Your task to perform on an android device: Go to Yahoo.com Image 0: 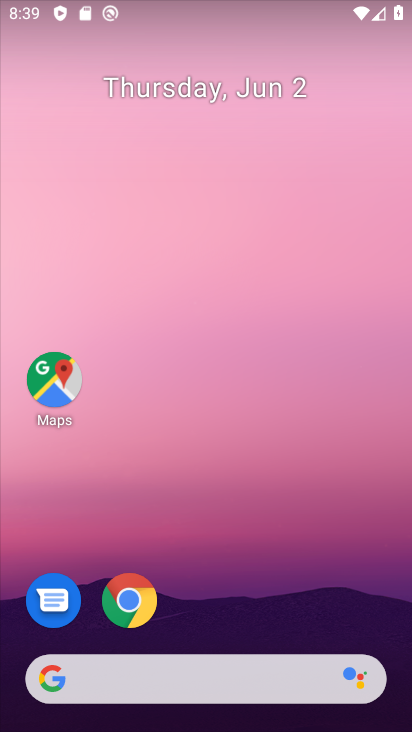
Step 0: click (216, 671)
Your task to perform on an android device: Go to Yahoo.com Image 1: 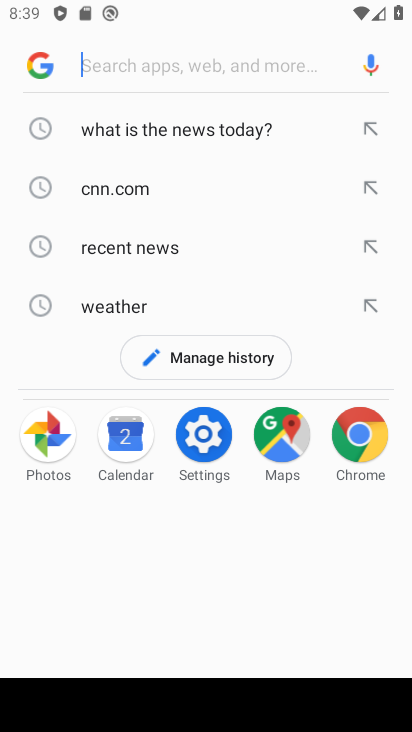
Step 1: type "Yahoo.com"
Your task to perform on an android device: Go to Yahoo.com Image 2: 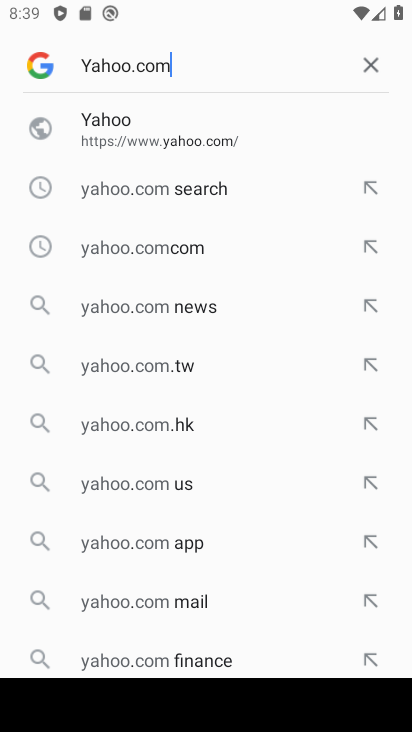
Step 2: click (141, 120)
Your task to perform on an android device: Go to Yahoo.com Image 3: 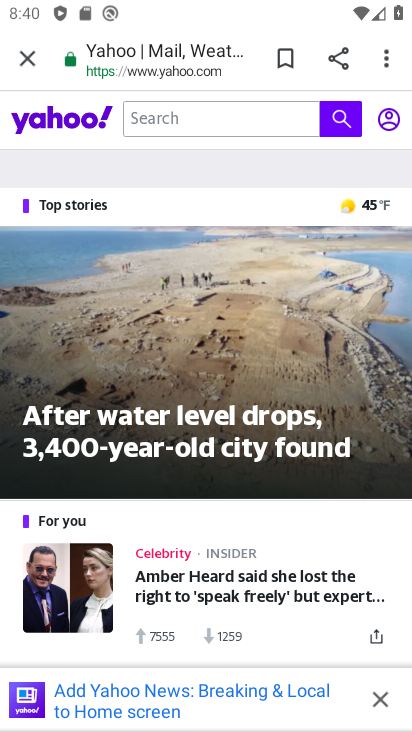
Step 3: task complete